Your task to perform on an android device: Open Maps and search for coffee Image 0: 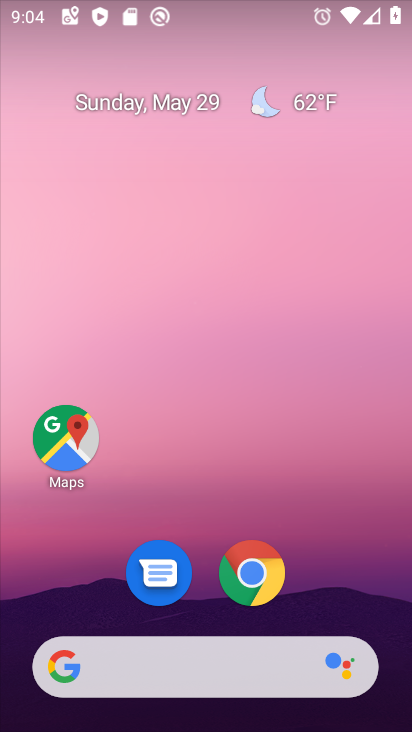
Step 0: click (71, 445)
Your task to perform on an android device: Open Maps and search for coffee Image 1: 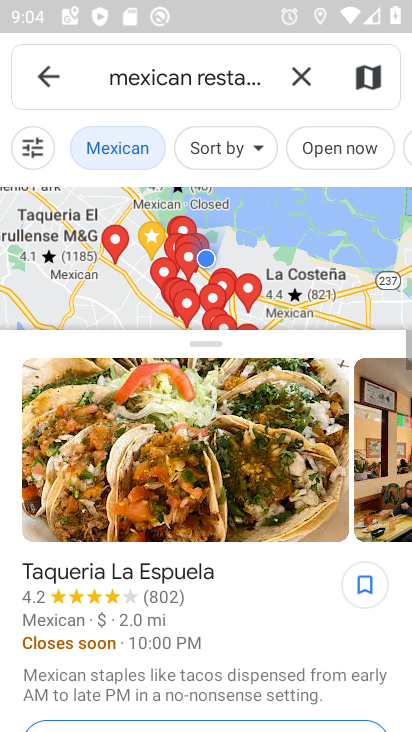
Step 1: click (299, 79)
Your task to perform on an android device: Open Maps and search for coffee Image 2: 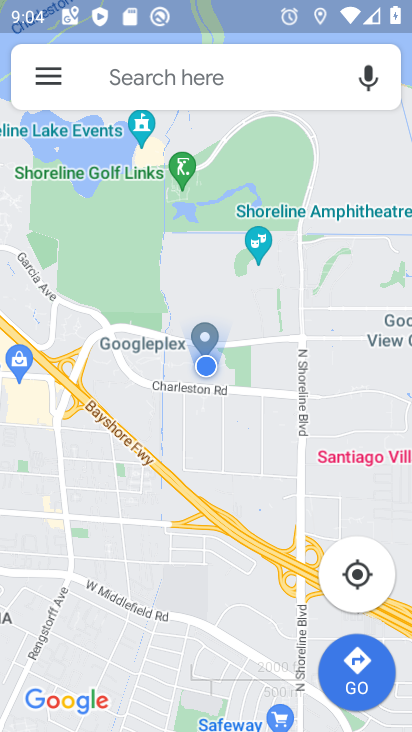
Step 2: click (135, 70)
Your task to perform on an android device: Open Maps and search for coffee Image 3: 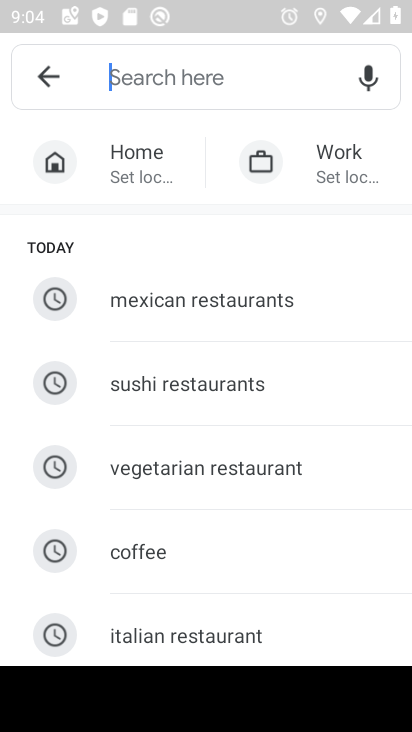
Step 3: click (153, 559)
Your task to perform on an android device: Open Maps and search for coffee Image 4: 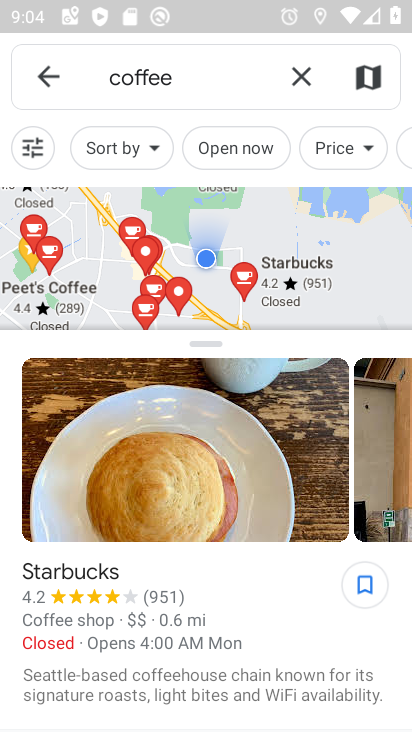
Step 4: task complete